Your task to perform on an android device: turn off improve location accuracy Image 0: 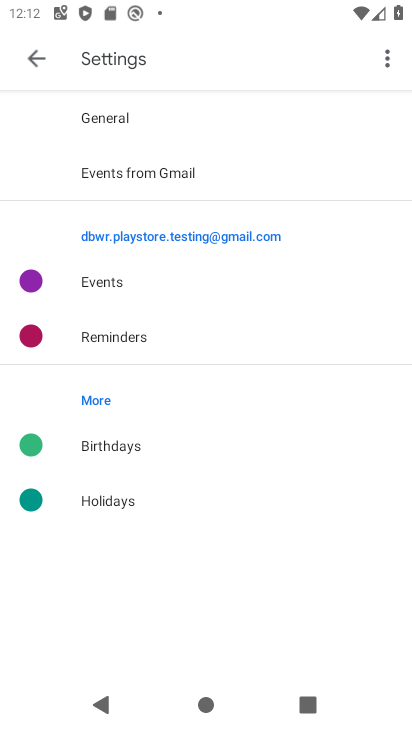
Step 0: press home button
Your task to perform on an android device: turn off improve location accuracy Image 1: 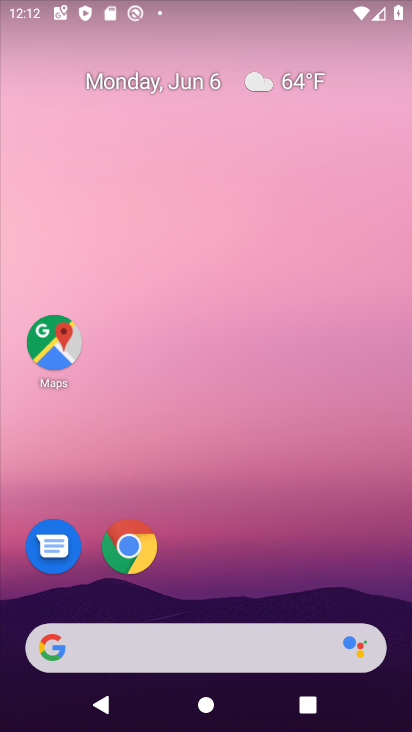
Step 1: drag from (184, 562) to (191, 344)
Your task to perform on an android device: turn off improve location accuracy Image 2: 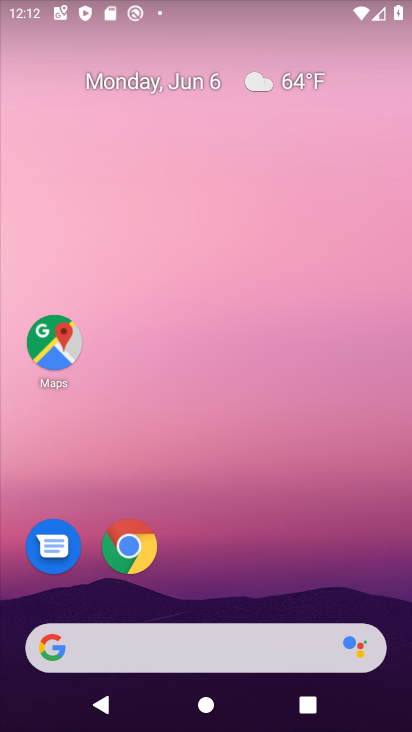
Step 2: click (261, 145)
Your task to perform on an android device: turn off improve location accuracy Image 3: 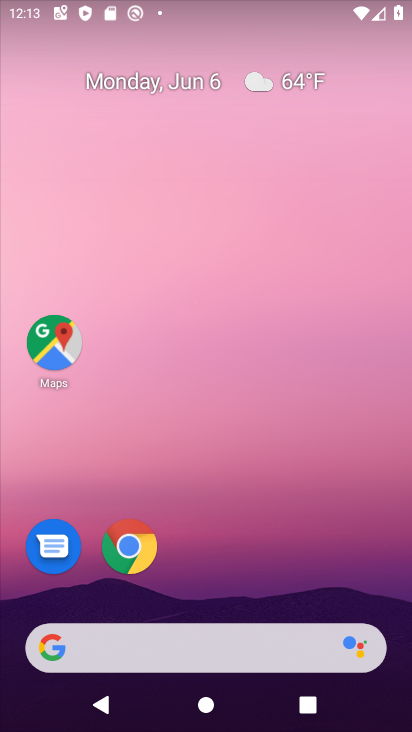
Step 3: drag from (267, 625) to (206, 236)
Your task to perform on an android device: turn off improve location accuracy Image 4: 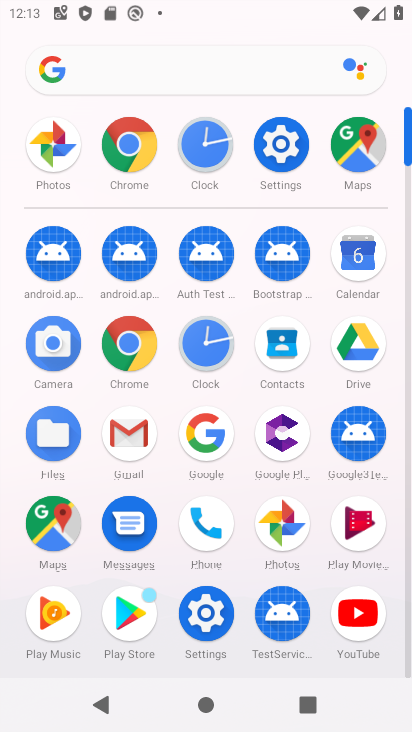
Step 4: click (279, 127)
Your task to perform on an android device: turn off improve location accuracy Image 5: 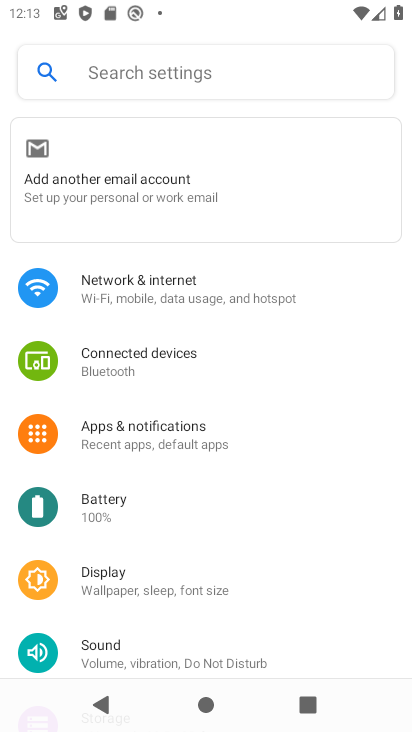
Step 5: drag from (157, 602) to (195, 314)
Your task to perform on an android device: turn off improve location accuracy Image 6: 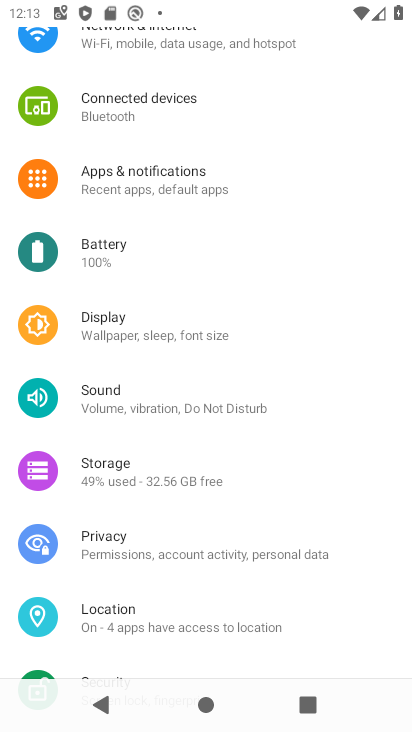
Step 6: click (140, 627)
Your task to perform on an android device: turn off improve location accuracy Image 7: 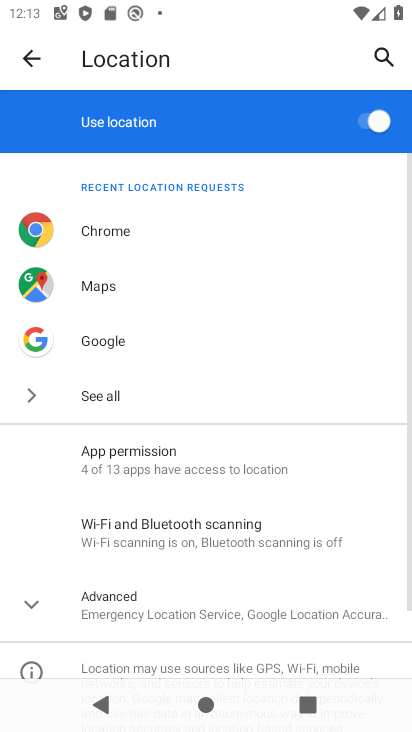
Step 7: click (288, 605)
Your task to perform on an android device: turn off improve location accuracy Image 8: 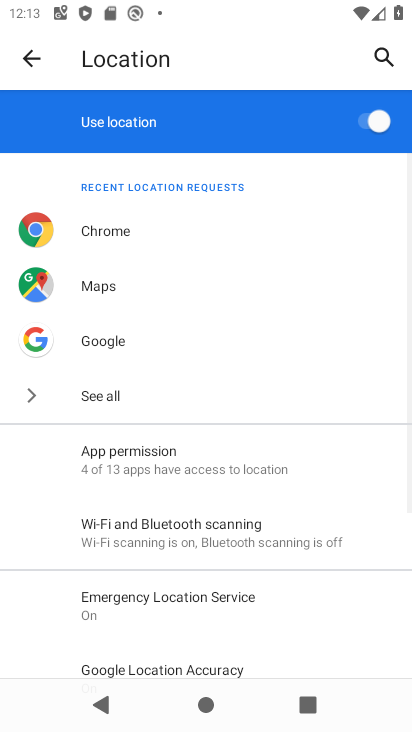
Step 8: drag from (202, 636) to (203, 437)
Your task to perform on an android device: turn off improve location accuracy Image 9: 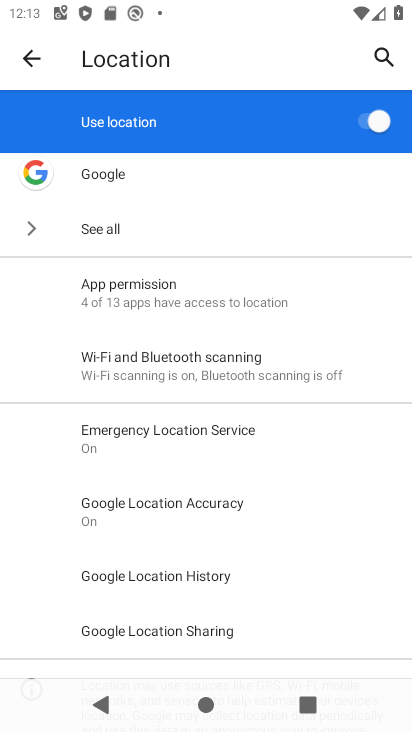
Step 9: click (173, 552)
Your task to perform on an android device: turn off improve location accuracy Image 10: 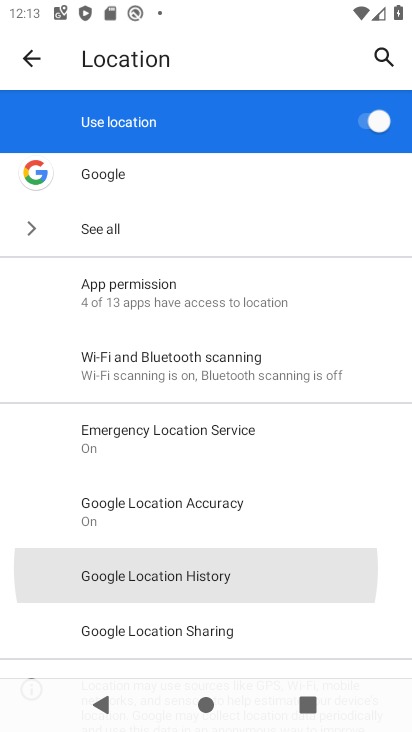
Step 10: click (162, 525)
Your task to perform on an android device: turn off improve location accuracy Image 11: 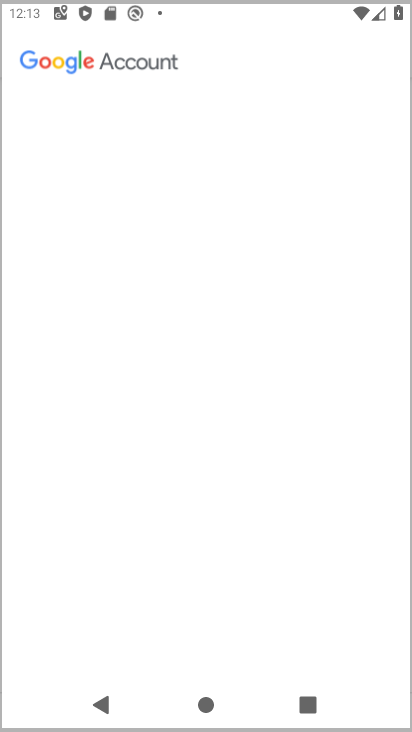
Step 11: click (27, 46)
Your task to perform on an android device: turn off improve location accuracy Image 12: 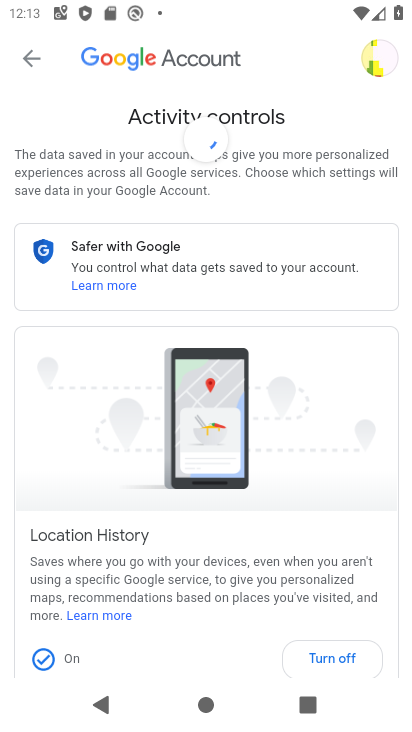
Step 12: click (22, 54)
Your task to perform on an android device: turn off improve location accuracy Image 13: 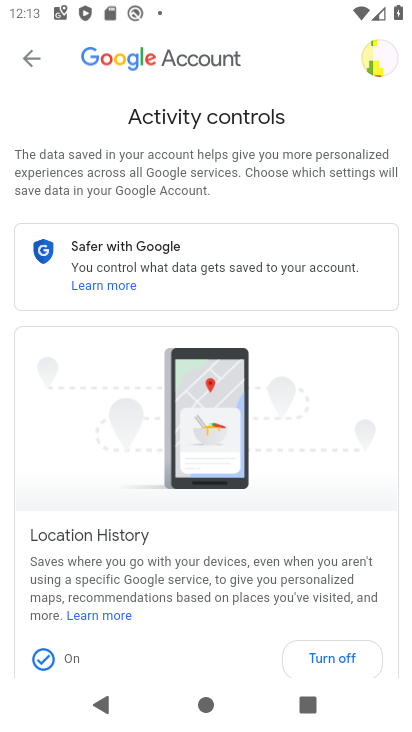
Step 13: click (38, 59)
Your task to perform on an android device: turn off improve location accuracy Image 14: 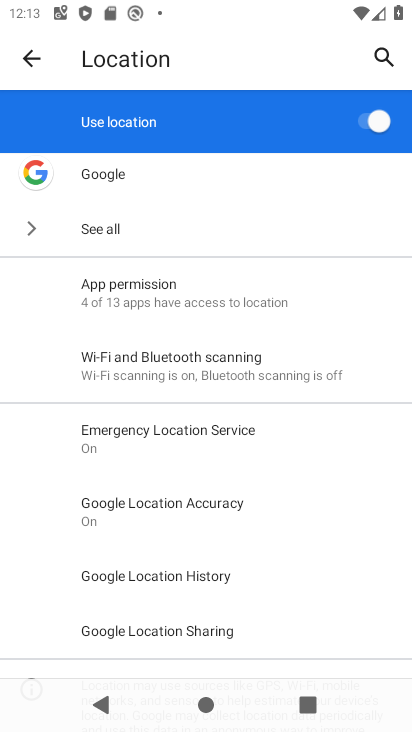
Step 14: click (196, 506)
Your task to perform on an android device: turn off improve location accuracy Image 15: 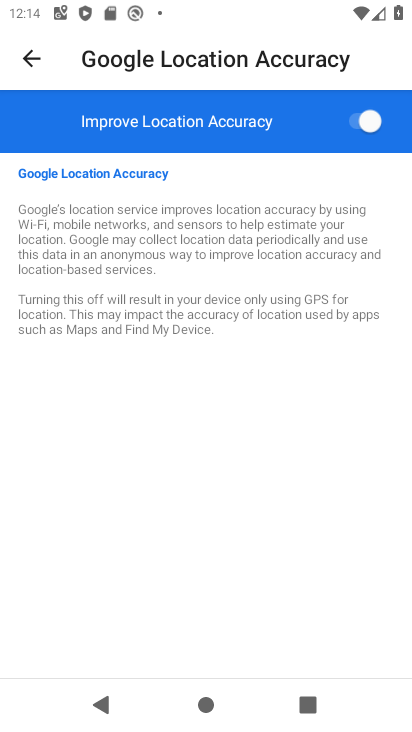
Step 15: click (352, 108)
Your task to perform on an android device: turn off improve location accuracy Image 16: 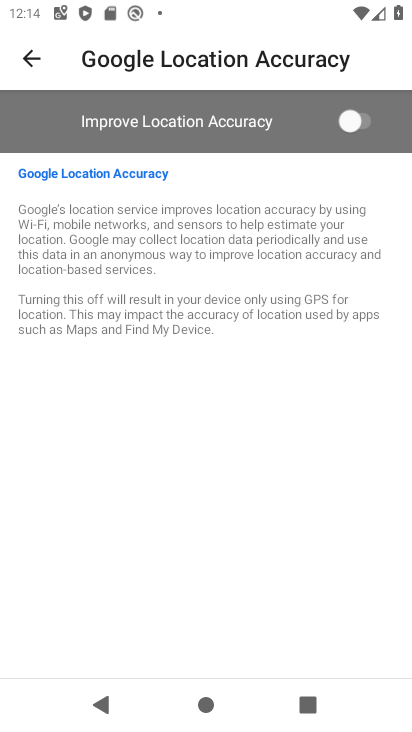
Step 16: task complete